Your task to perform on an android device: find which apps use the phone's location Image 0: 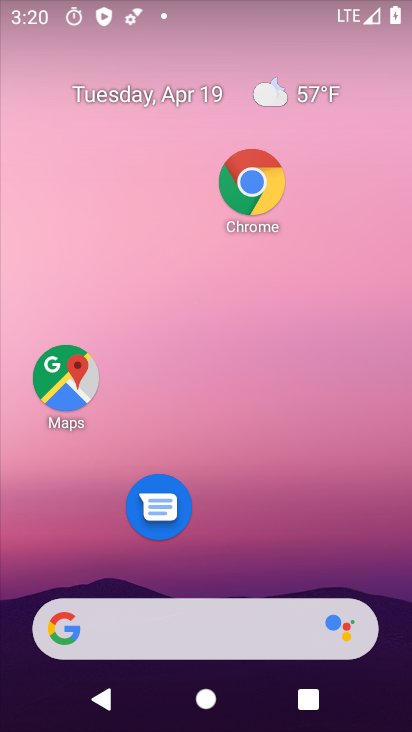
Step 0: drag from (269, 538) to (280, 75)
Your task to perform on an android device: find which apps use the phone's location Image 1: 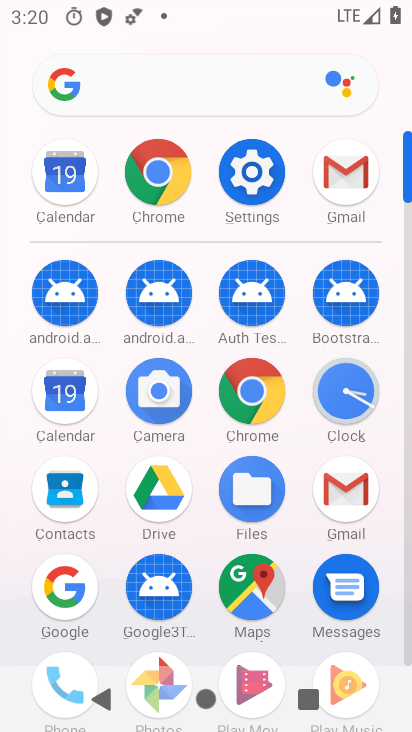
Step 1: click (271, 182)
Your task to perform on an android device: find which apps use the phone's location Image 2: 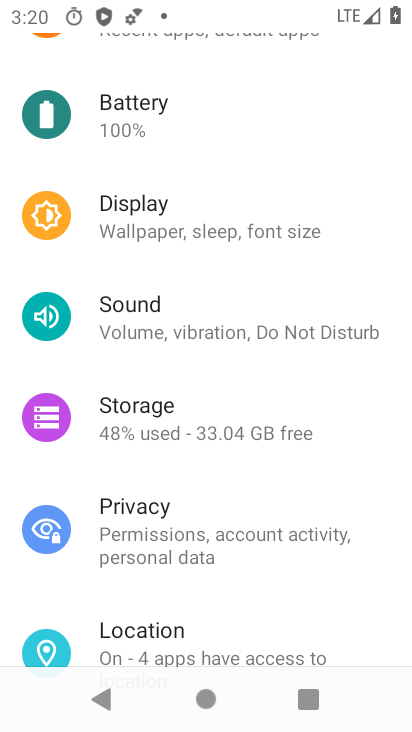
Step 2: click (185, 633)
Your task to perform on an android device: find which apps use the phone's location Image 3: 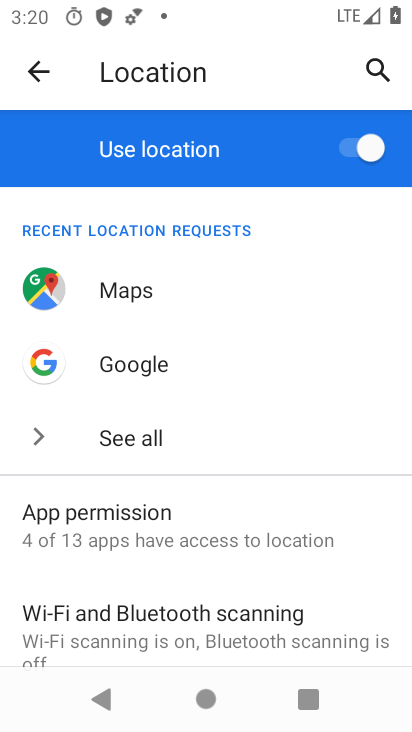
Step 3: drag from (272, 573) to (300, 288)
Your task to perform on an android device: find which apps use the phone's location Image 4: 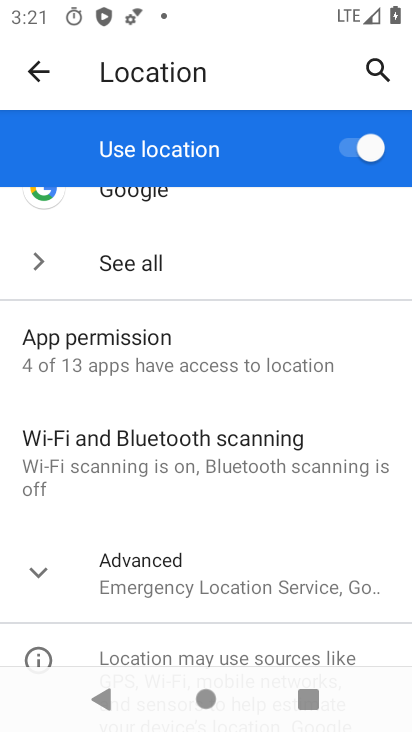
Step 4: click (186, 360)
Your task to perform on an android device: find which apps use the phone's location Image 5: 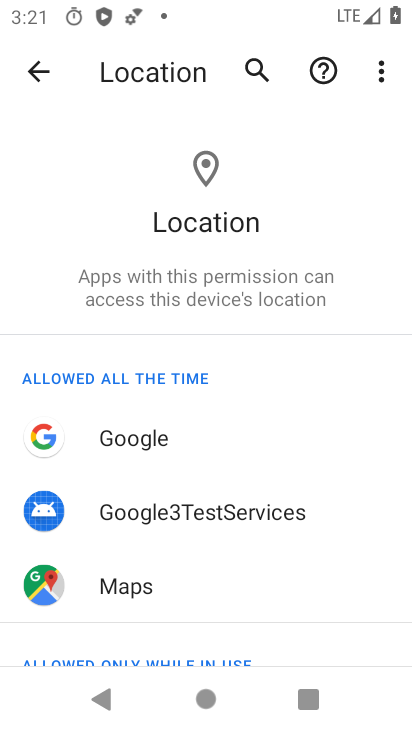
Step 5: task complete